Your task to perform on an android device: Open Google Chrome and open the bookmarks view Image 0: 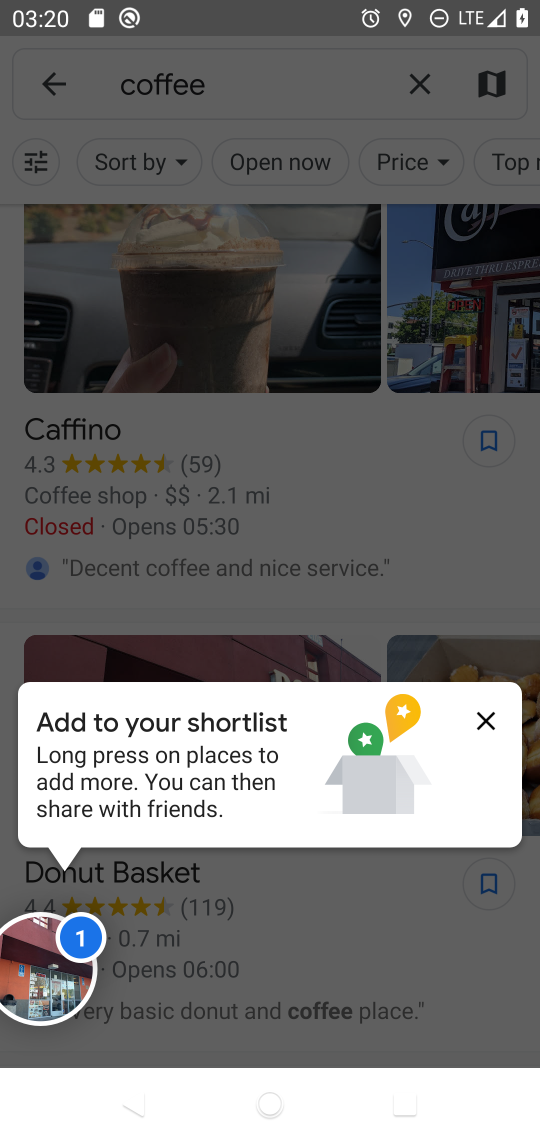
Step 0: press home button
Your task to perform on an android device: Open Google Chrome and open the bookmarks view Image 1: 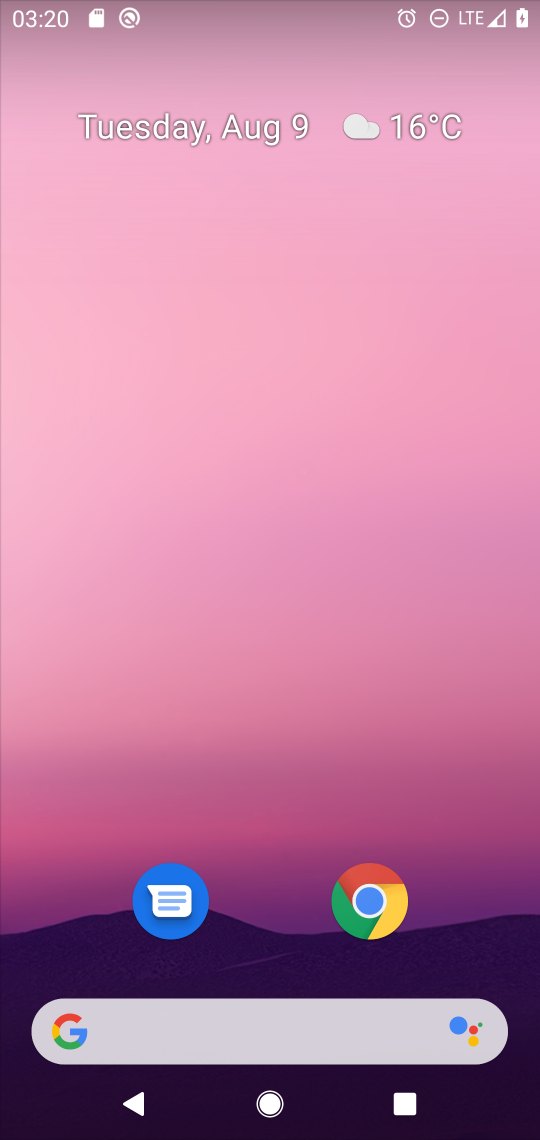
Step 1: click (376, 910)
Your task to perform on an android device: Open Google Chrome and open the bookmarks view Image 2: 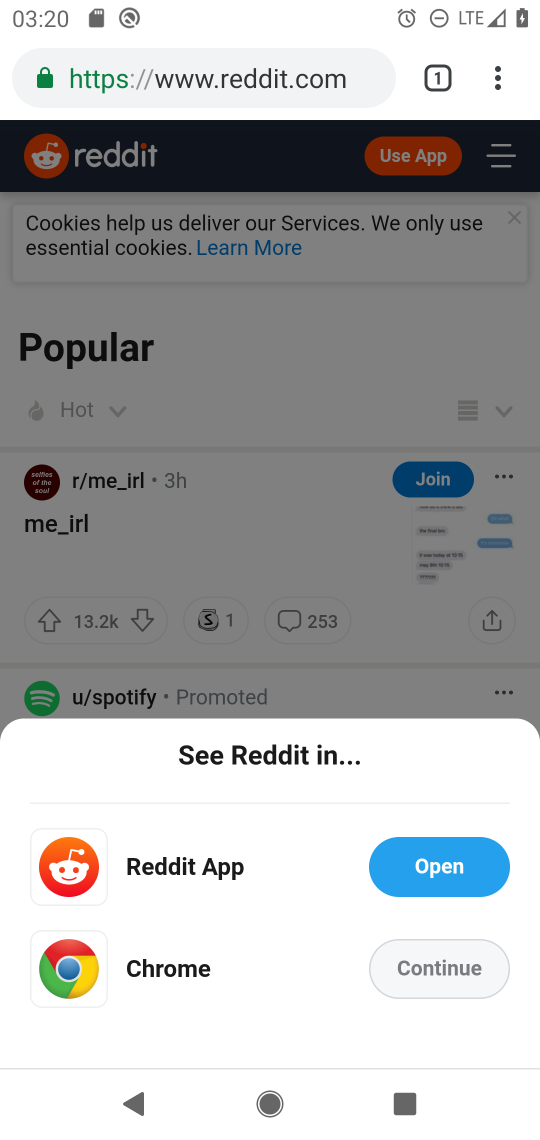
Step 2: click (494, 84)
Your task to perform on an android device: Open Google Chrome and open the bookmarks view Image 3: 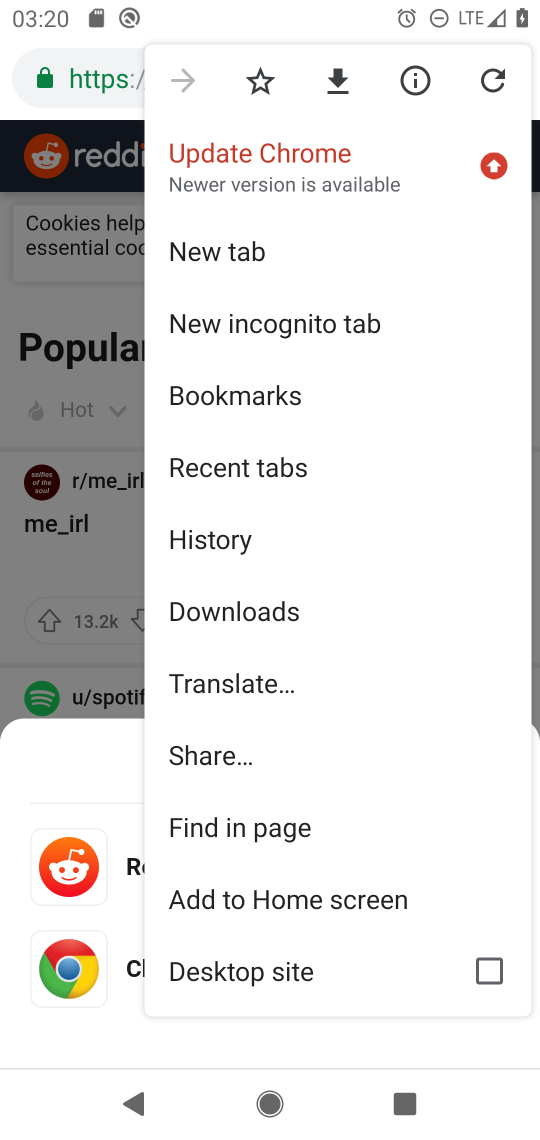
Step 3: click (240, 398)
Your task to perform on an android device: Open Google Chrome and open the bookmarks view Image 4: 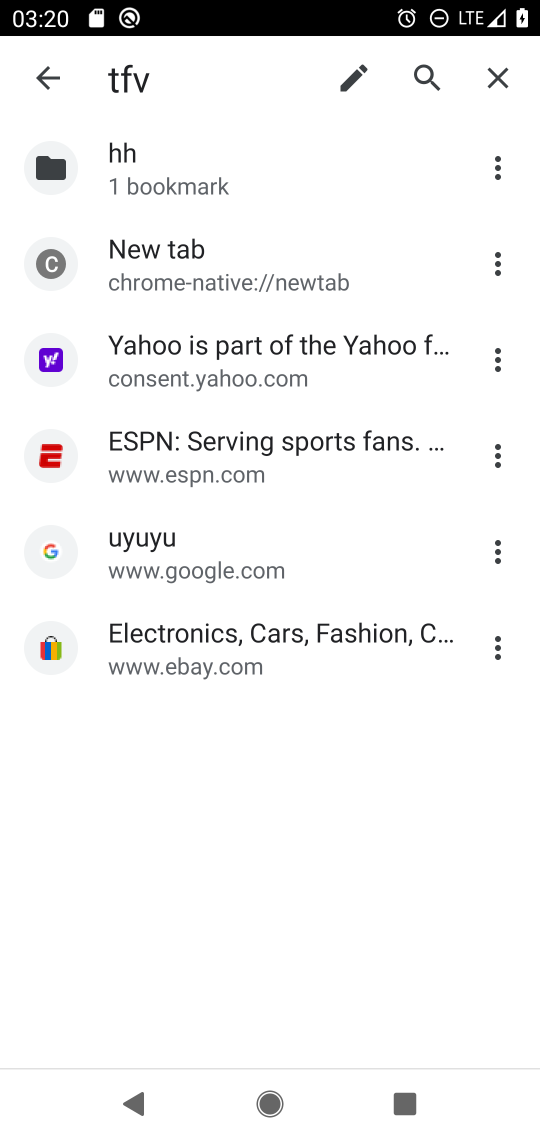
Step 4: task complete